Your task to perform on an android device: open app "VLC for Android" Image 0: 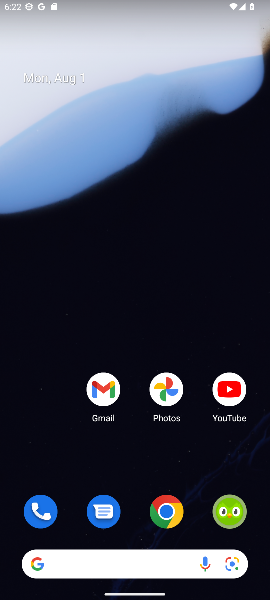
Step 0: drag from (158, 297) to (87, 14)
Your task to perform on an android device: open app "VLC for Android" Image 1: 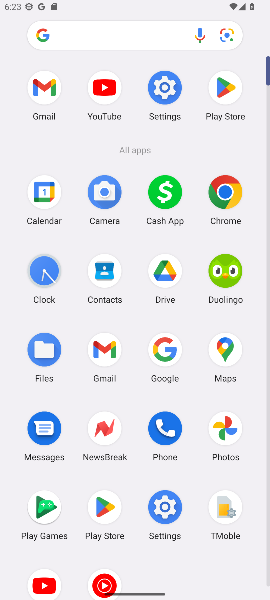
Step 1: click (222, 90)
Your task to perform on an android device: open app "VLC for Android" Image 2: 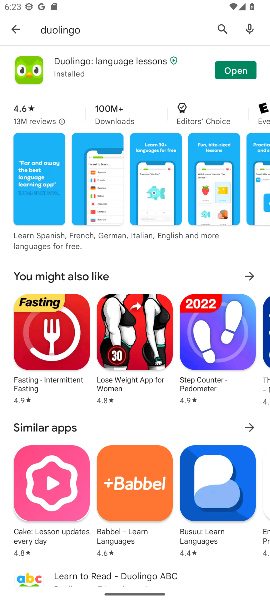
Step 2: click (224, 28)
Your task to perform on an android device: open app "VLC for Android" Image 3: 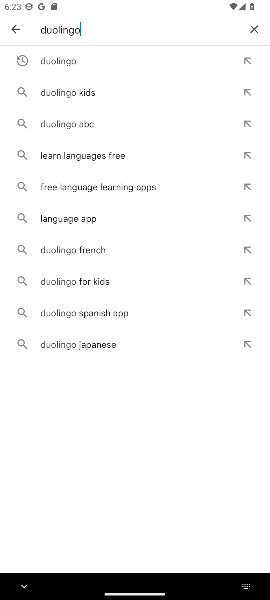
Step 3: click (250, 29)
Your task to perform on an android device: open app "VLC for Android" Image 4: 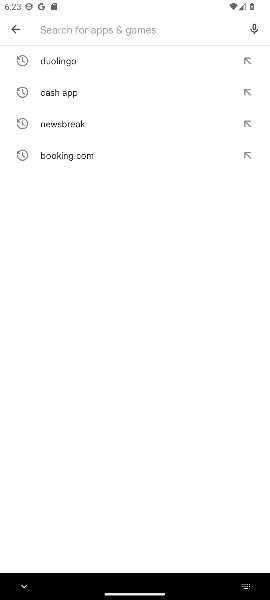
Step 4: type "vlc for android"
Your task to perform on an android device: open app "VLC for Android" Image 5: 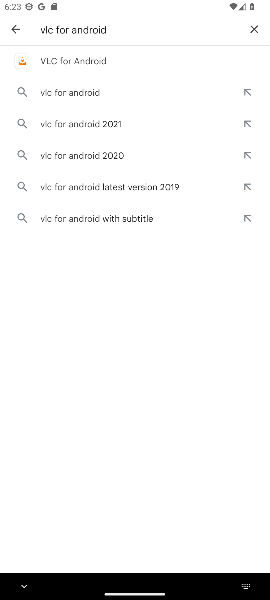
Step 5: click (98, 62)
Your task to perform on an android device: open app "VLC for Android" Image 6: 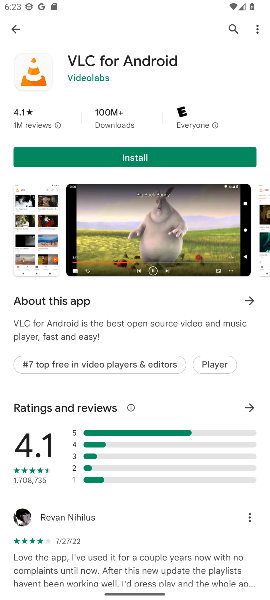
Step 6: task complete